Your task to perform on an android device: What's on my calendar tomorrow? Image 0: 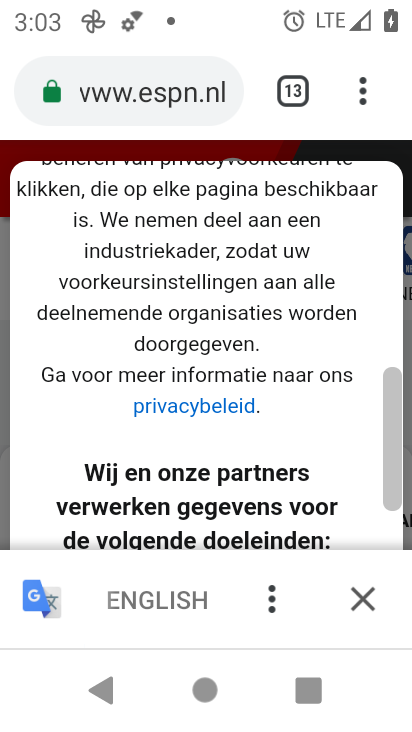
Step 0: press home button
Your task to perform on an android device: What's on my calendar tomorrow? Image 1: 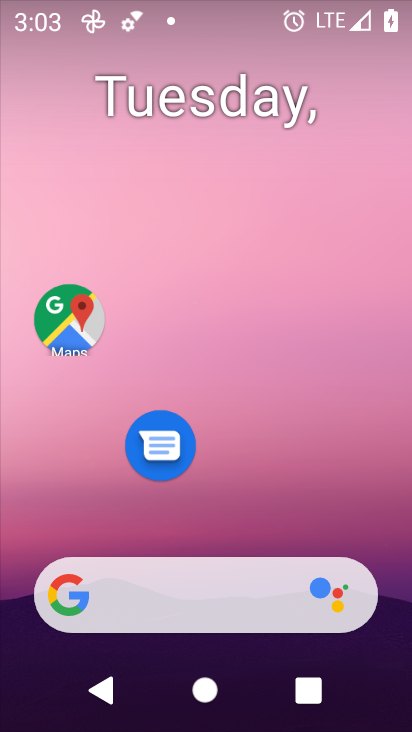
Step 1: drag from (305, 441) to (244, 7)
Your task to perform on an android device: What's on my calendar tomorrow? Image 2: 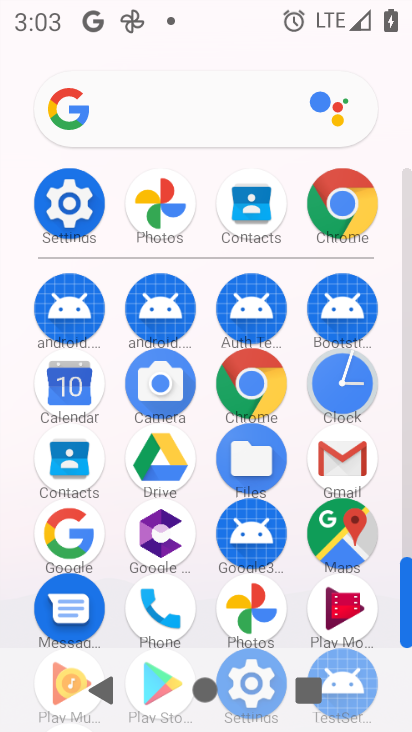
Step 2: click (73, 389)
Your task to perform on an android device: What's on my calendar tomorrow? Image 3: 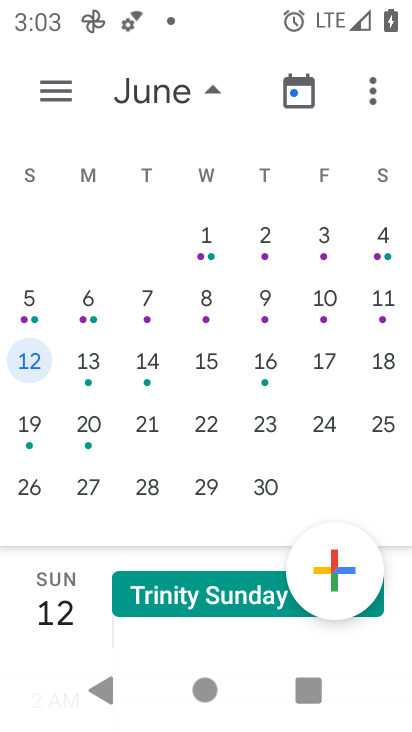
Step 3: drag from (26, 294) to (397, 365)
Your task to perform on an android device: What's on my calendar tomorrow? Image 4: 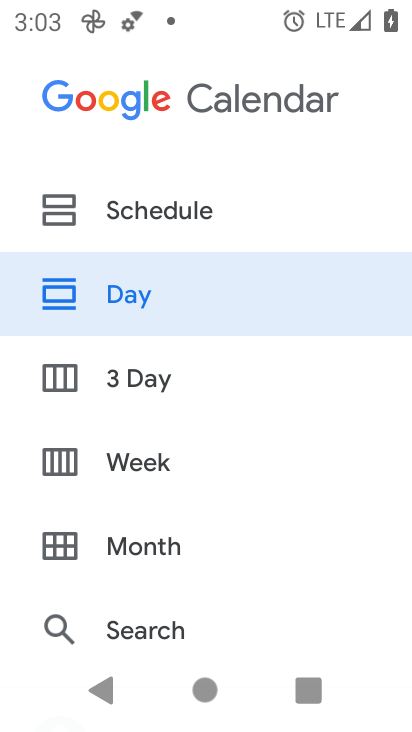
Step 4: click (366, 337)
Your task to perform on an android device: What's on my calendar tomorrow? Image 5: 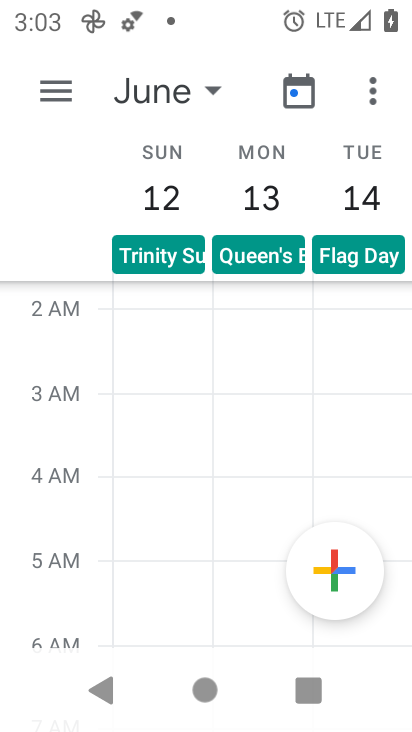
Step 5: click (209, 87)
Your task to perform on an android device: What's on my calendar tomorrow? Image 6: 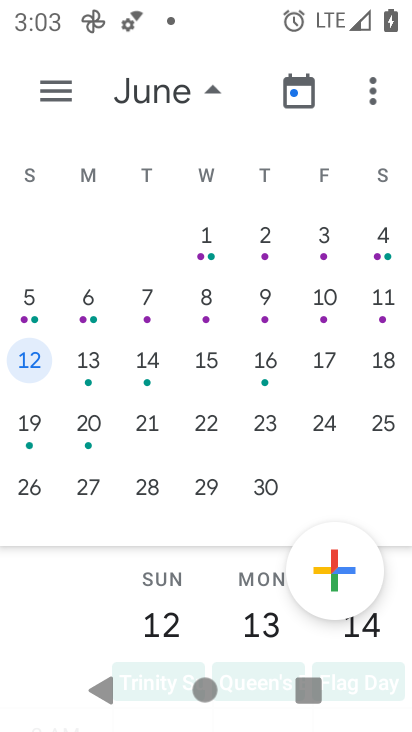
Step 6: drag from (117, 384) to (338, 271)
Your task to perform on an android device: What's on my calendar tomorrow? Image 7: 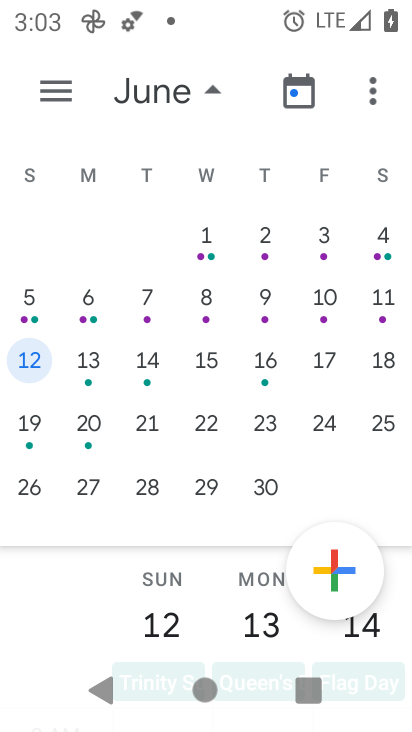
Step 7: drag from (75, 255) to (396, 376)
Your task to perform on an android device: What's on my calendar tomorrow? Image 8: 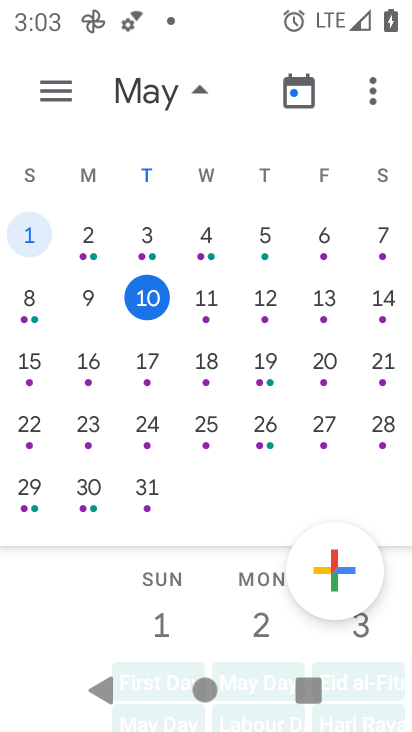
Step 8: click (55, 91)
Your task to perform on an android device: What's on my calendar tomorrow? Image 9: 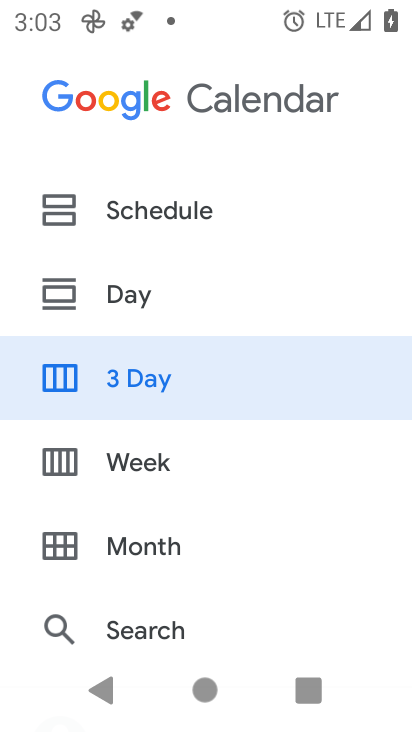
Step 9: click (121, 289)
Your task to perform on an android device: What's on my calendar tomorrow? Image 10: 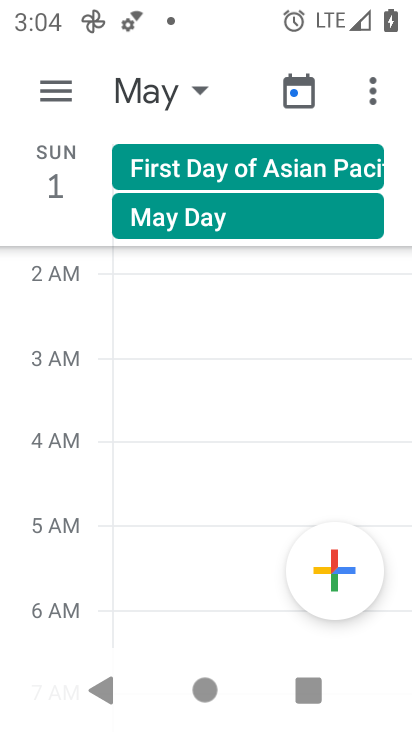
Step 10: click (197, 85)
Your task to perform on an android device: What's on my calendar tomorrow? Image 11: 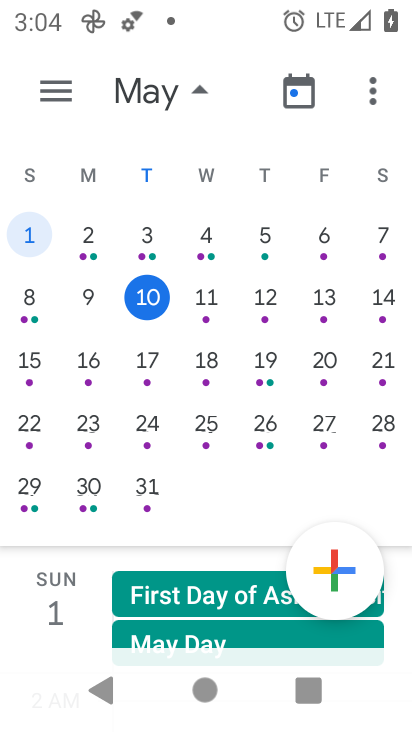
Step 11: click (141, 301)
Your task to perform on an android device: What's on my calendar tomorrow? Image 12: 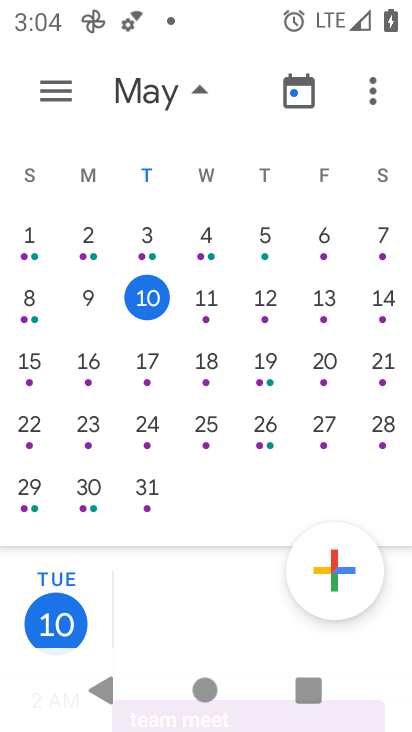
Step 12: task complete